Your task to perform on an android device: Open my contact list Image 0: 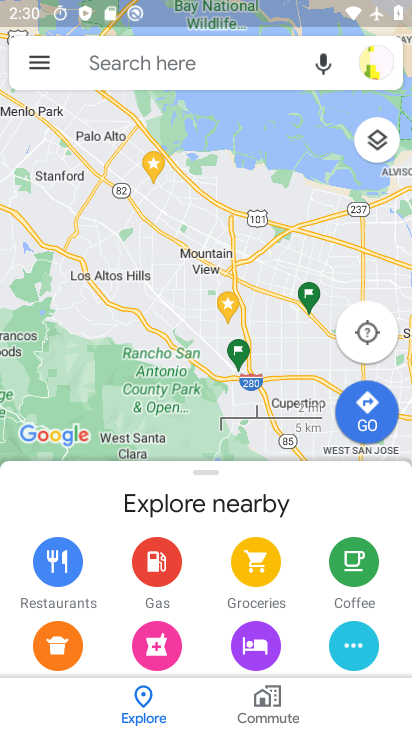
Step 0: press home button
Your task to perform on an android device: Open my contact list Image 1: 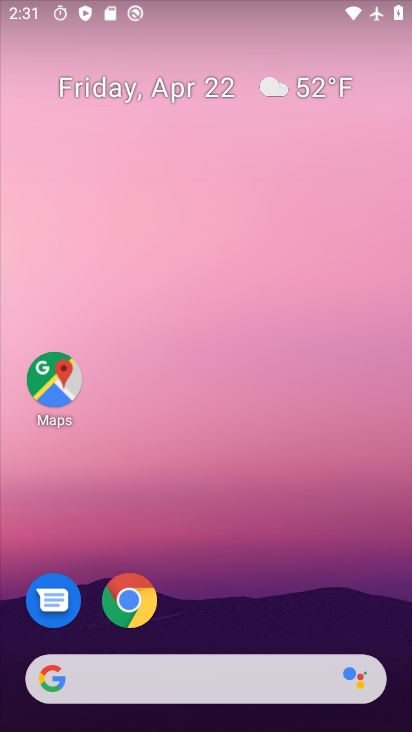
Step 1: drag from (209, 722) to (216, 152)
Your task to perform on an android device: Open my contact list Image 2: 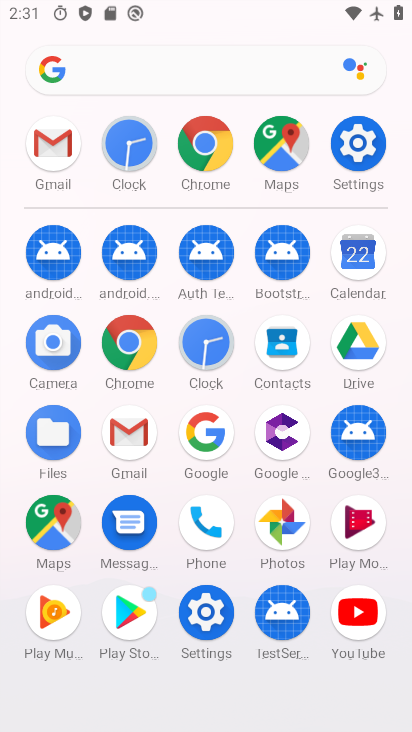
Step 2: click (291, 346)
Your task to perform on an android device: Open my contact list Image 3: 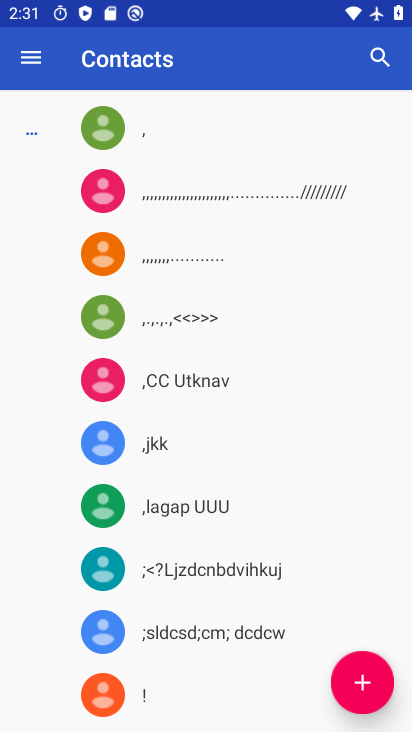
Step 3: task complete